Your task to perform on an android device: Open internet settings Image 0: 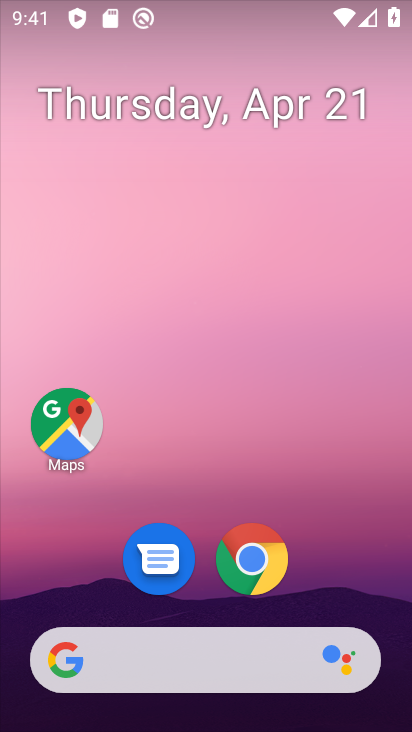
Step 0: press home button
Your task to perform on an android device: Open internet settings Image 1: 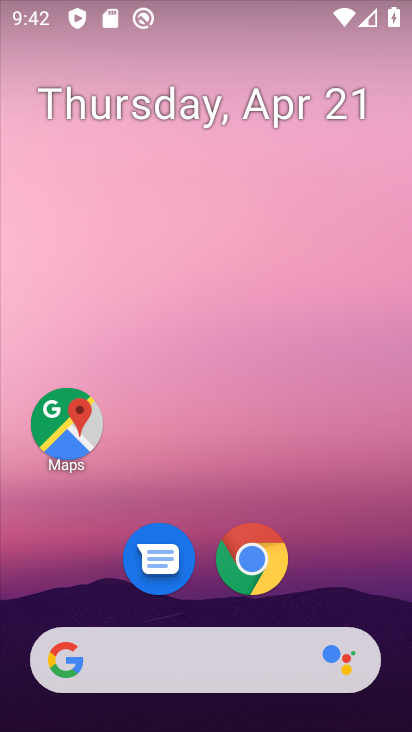
Step 1: drag from (180, 702) to (301, 240)
Your task to perform on an android device: Open internet settings Image 2: 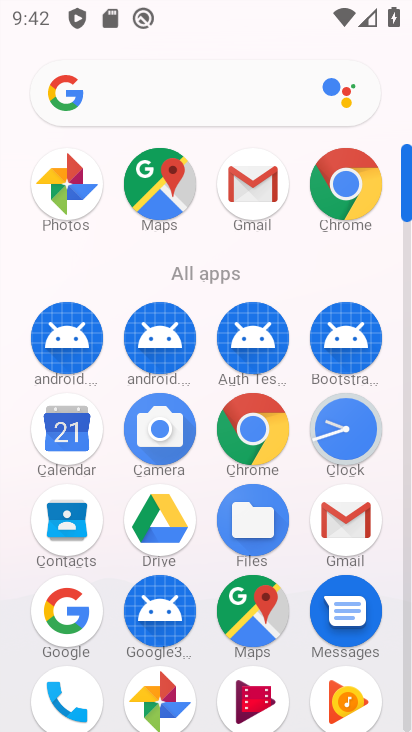
Step 2: drag from (198, 466) to (280, 192)
Your task to perform on an android device: Open internet settings Image 3: 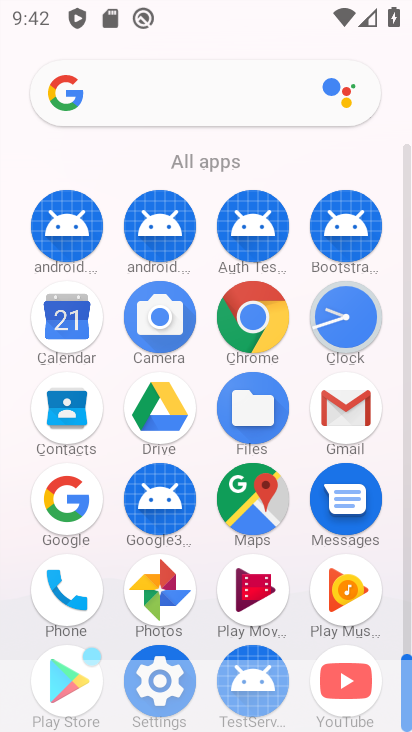
Step 3: click (158, 654)
Your task to perform on an android device: Open internet settings Image 4: 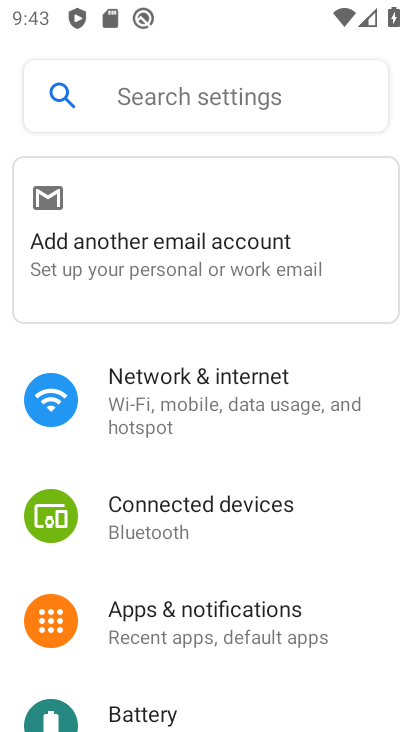
Step 4: click (205, 383)
Your task to perform on an android device: Open internet settings Image 5: 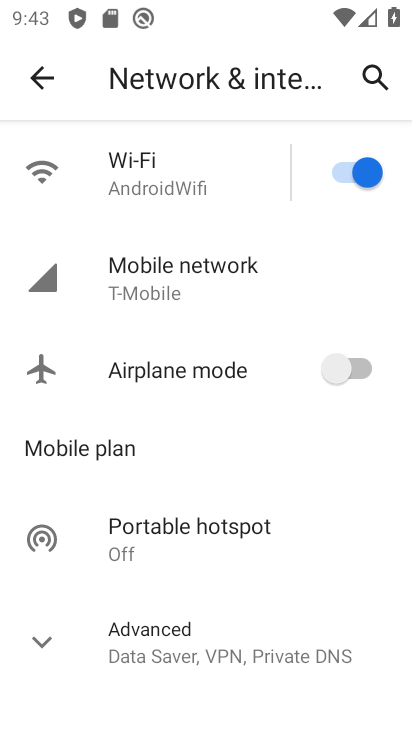
Step 5: task complete